Your task to perform on an android device: change text size in settings app Image 0: 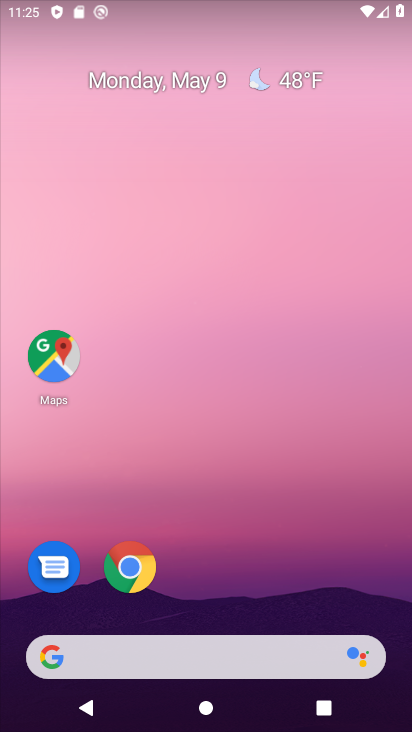
Step 0: drag from (183, 620) to (301, 102)
Your task to perform on an android device: change text size in settings app Image 1: 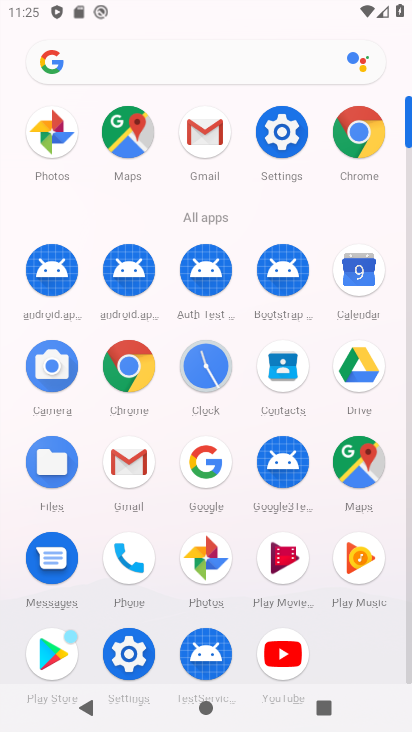
Step 1: click (280, 129)
Your task to perform on an android device: change text size in settings app Image 2: 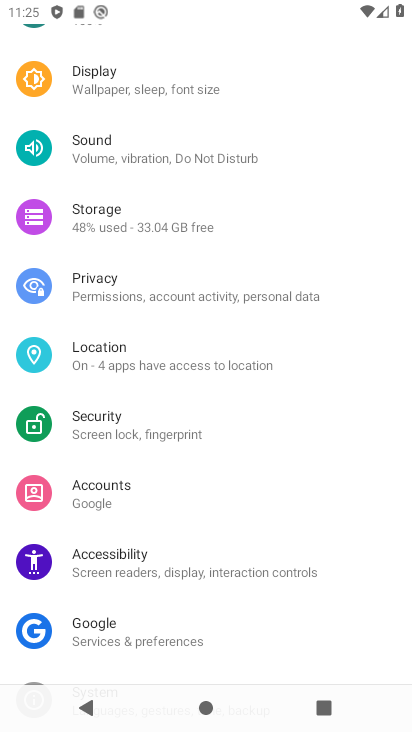
Step 2: click (218, 102)
Your task to perform on an android device: change text size in settings app Image 3: 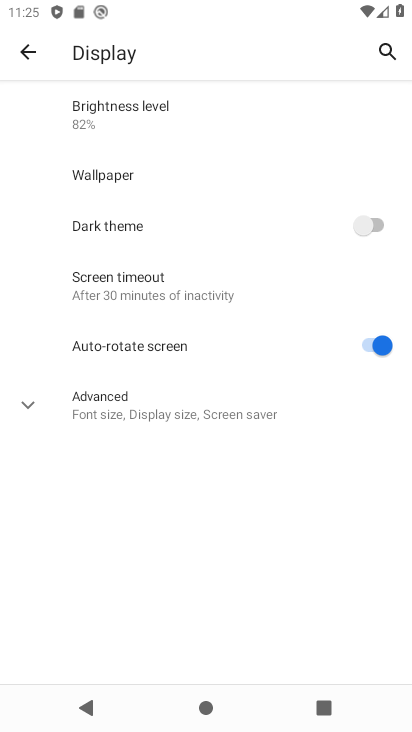
Step 3: click (177, 416)
Your task to perform on an android device: change text size in settings app Image 4: 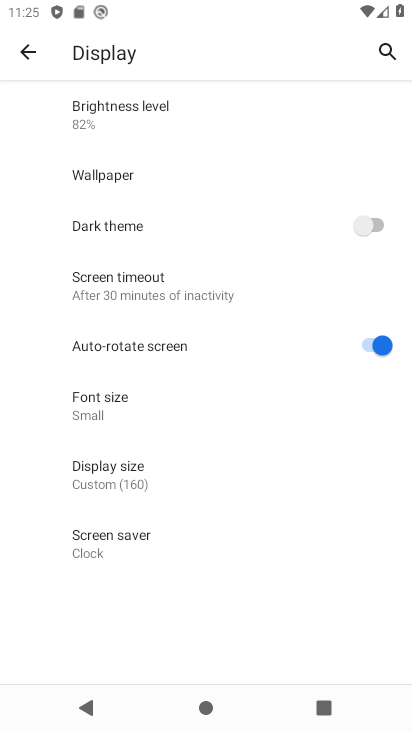
Step 4: click (167, 405)
Your task to perform on an android device: change text size in settings app Image 5: 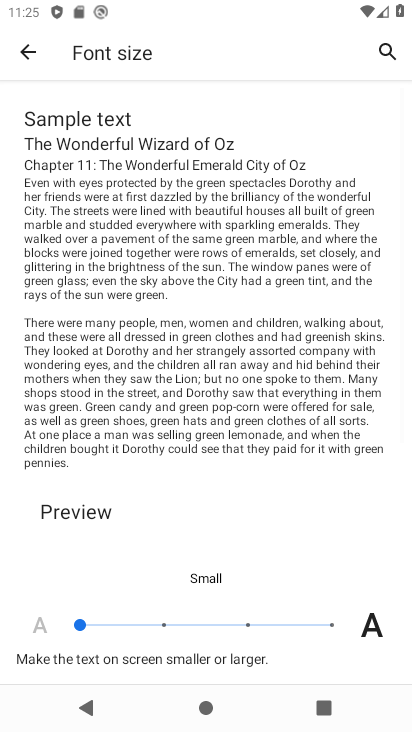
Step 5: click (172, 619)
Your task to perform on an android device: change text size in settings app Image 6: 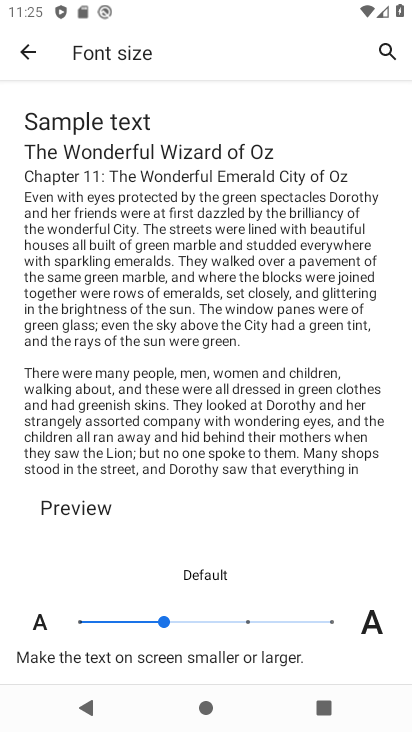
Step 6: task complete